Your task to perform on an android device: Search for Italian restaurants on Maps Image 0: 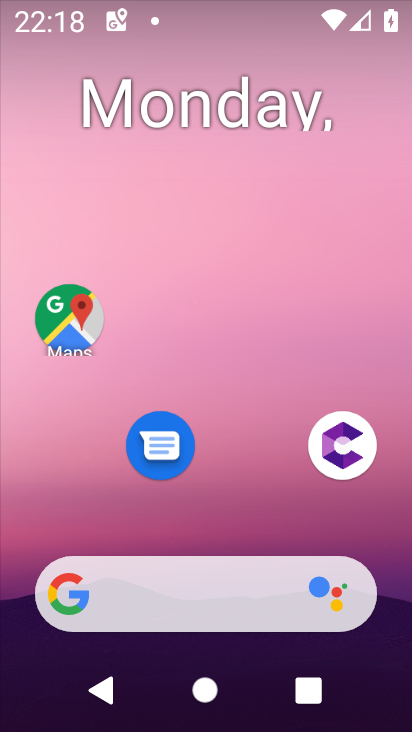
Step 0: click (77, 323)
Your task to perform on an android device: Search for Italian restaurants on Maps Image 1: 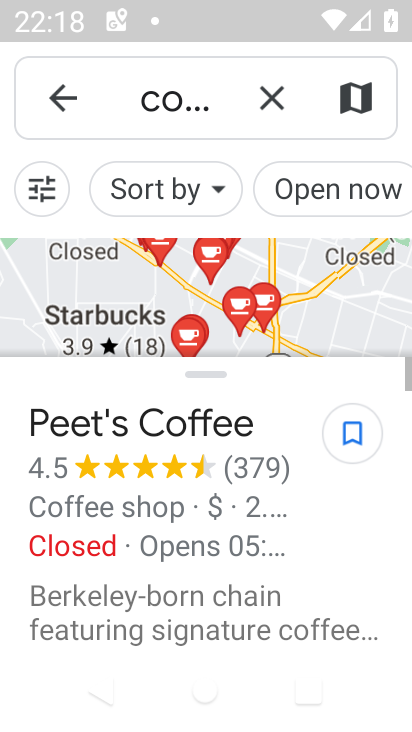
Step 1: click (268, 91)
Your task to perform on an android device: Search for Italian restaurants on Maps Image 2: 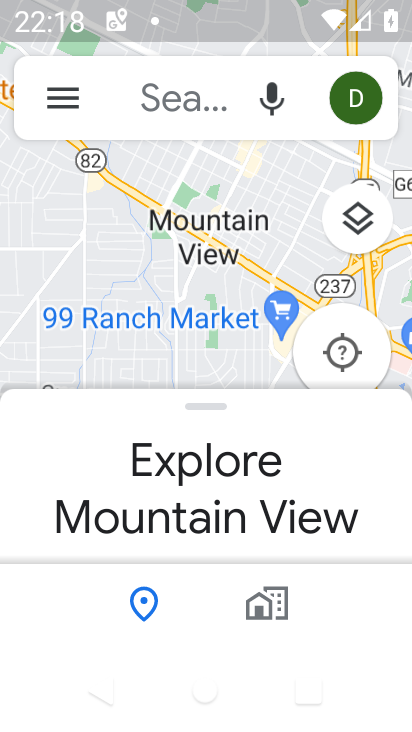
Step 2: click (202, 98)
Your task to perform on an android device: Search for Italian restaurants on Maps Image 3: 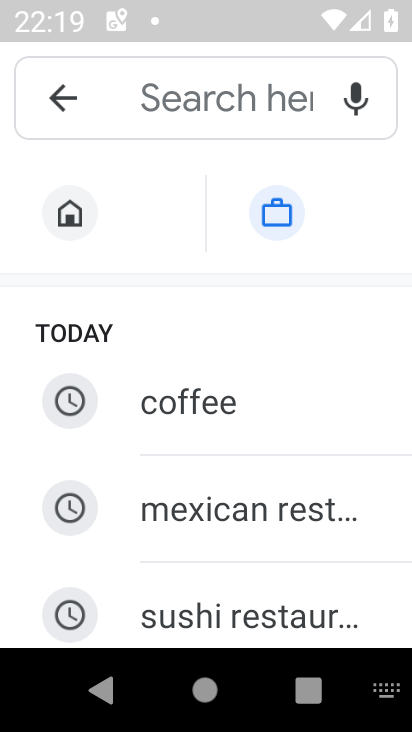
Step 3: type " Italian restaurants"
Your task to perform on an android device: Search for Italian restaurants on Maps Image 4: 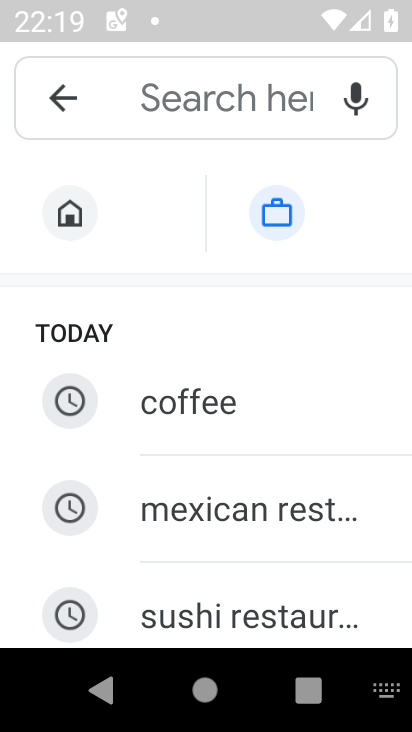
Step 4: click (189, 95)
Your task to perform on an android device: Search for Italian restaurants on Maps Image 5: 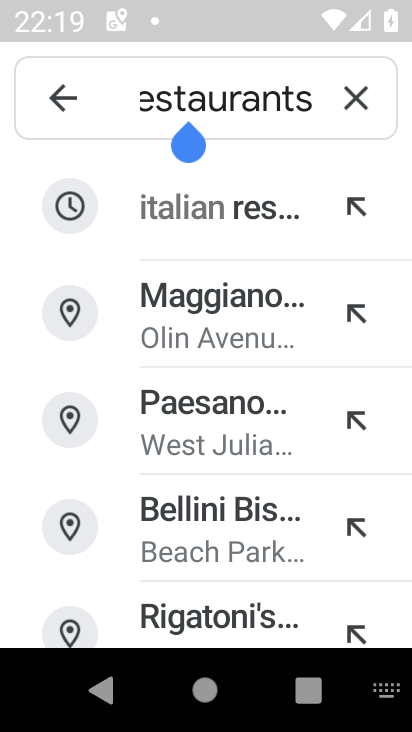
Step 5: click (206, 197)
Your task to perform on an android device: Search for Italian restaurants on Maps Image 6: 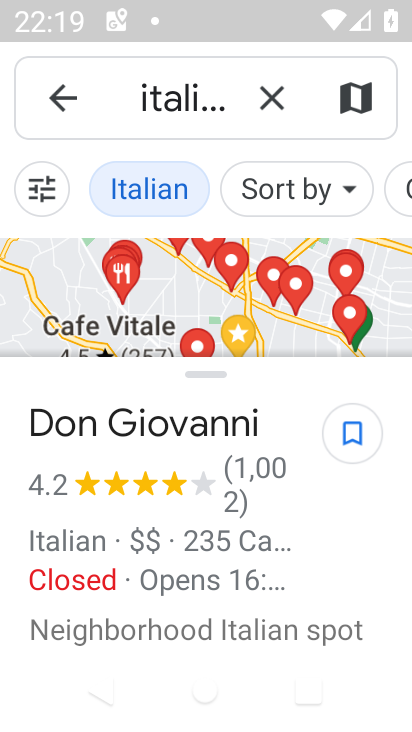
Step 6: task complete